Your task to perform on an android device: move a message to another label in the gmail app Image 0: 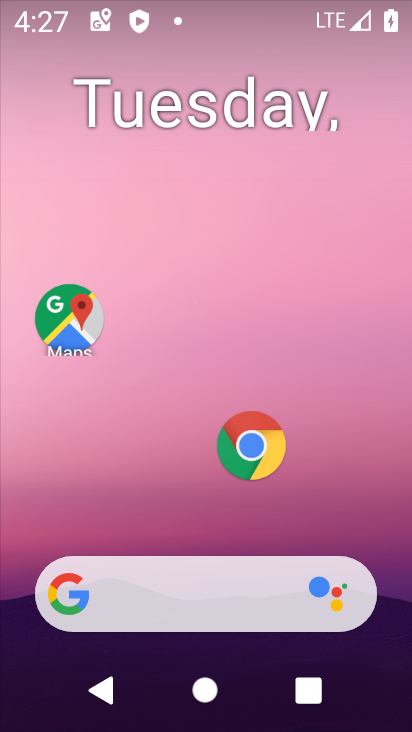
Step 0: drag from (175, 535) to (244, 18)
Your task to perform on an android device: move a message to another label in the gmail app Image 1: 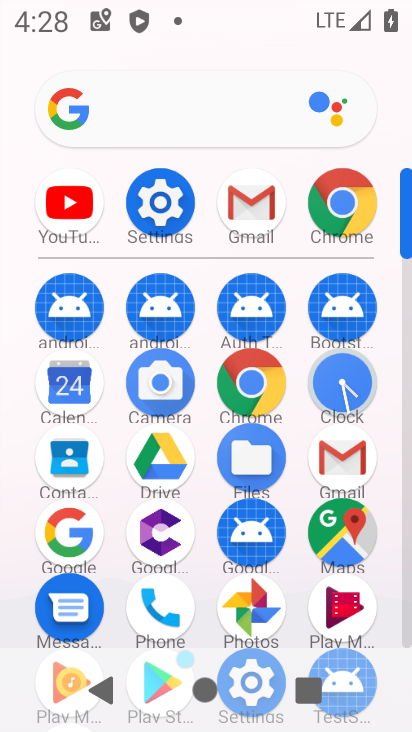
Step 1: click (347, 456)
Your task to perform on an android device: move a message to another label in the gmail app Image 2: 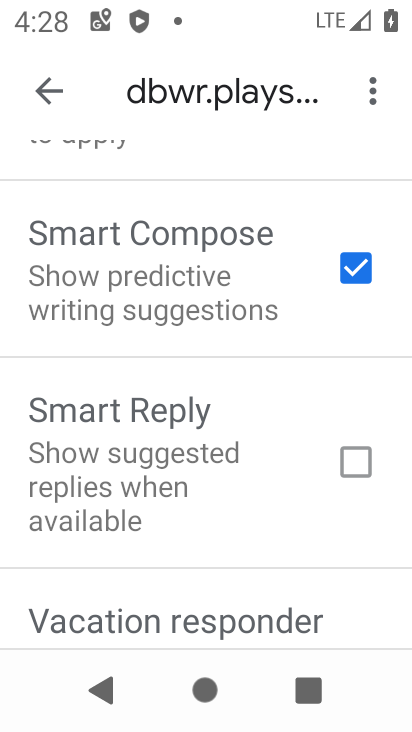
Step 2: click (51, 85)
Your task to perform on an android device: move a message to another label in the gmail app Image 3: 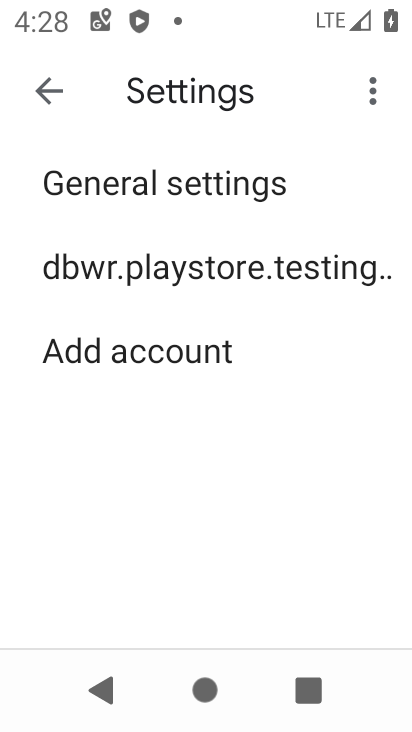
Step 3: click (48, 85)
Your task to perform on an android device: move a message to another label in the gmail app Image 4: 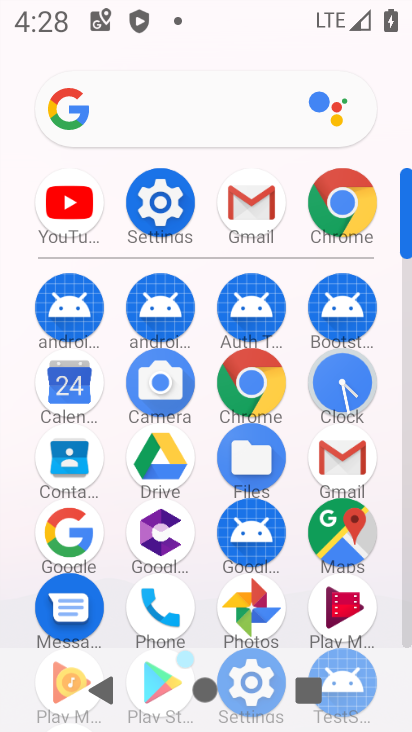
Step 4: click (339, 477)
Your task to perform on an android device: move a message to another label in the gmail app Image 5: 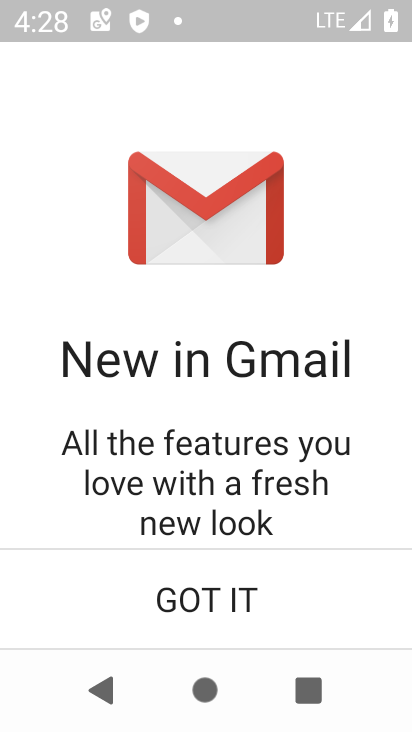
Step 5: click (232, 612)
Your task to perform on an android device: move a message to another label in the gmail app Image 6: 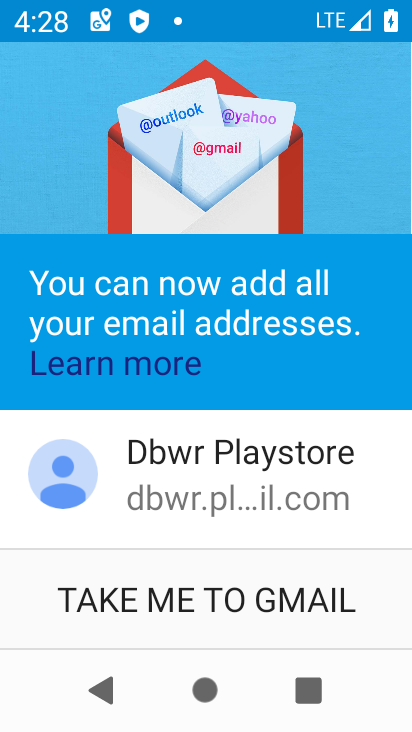
Step 6: click (176, 615)
Your task to perform on an android device: move a message to another label in the gmail app Image 7: 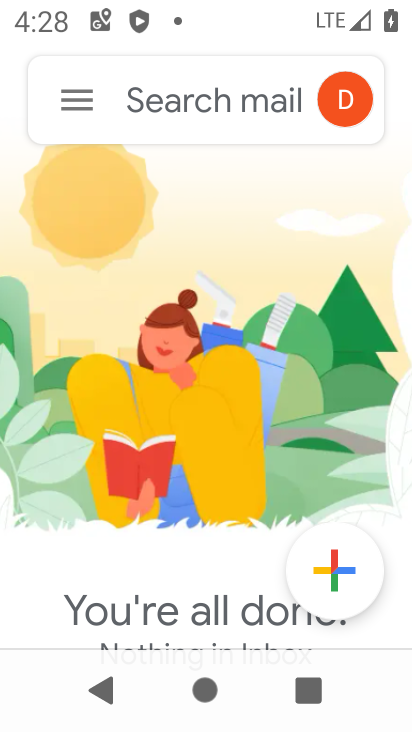
Step 7: click (53, 105)
Your task to perform on an android device: move a message to another label in the gmail app Image 8: 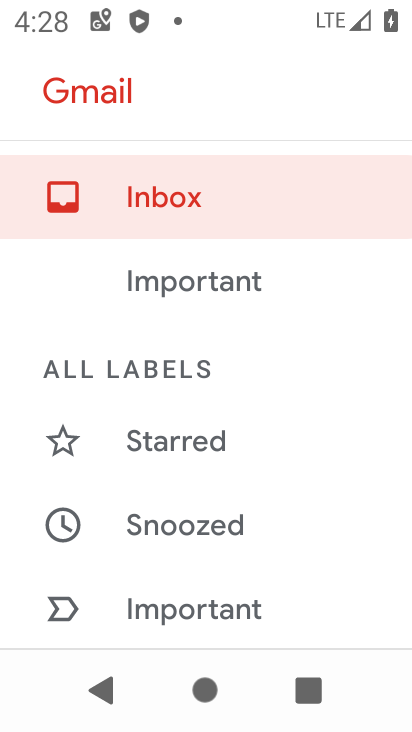
Step 8: drag from (171, 501) to (194, 125)
Your task to perform on an android device: move a message to another label in the gmail app Image 9: 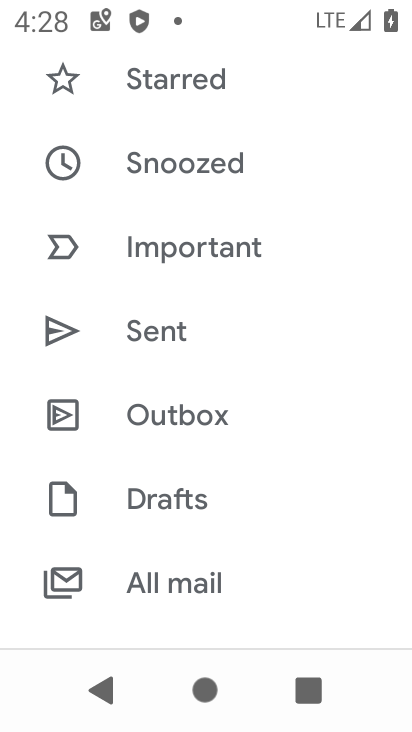
Step 9: drag from (187, 539) to (247, 74)
Your task to perform on an android device: move a message to another label in the gmail app Image 10: 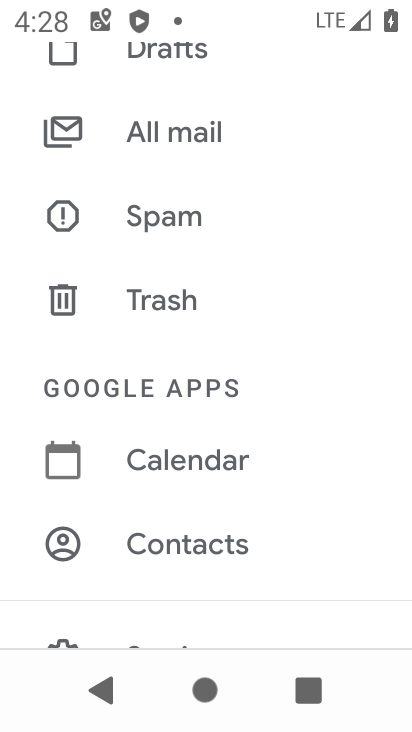
Step 10: click (165, 157)
Your task to perform on an android device: move a message to another label in the gmail app Image 11: 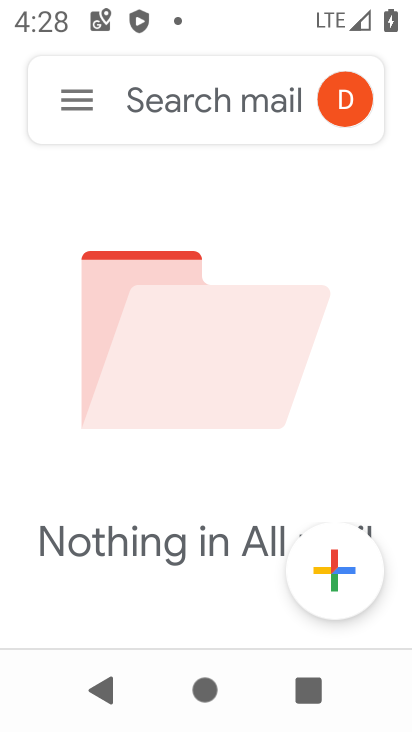
Step 11: task complete